Your task to perform on an android device: change notifications settings Image 0: 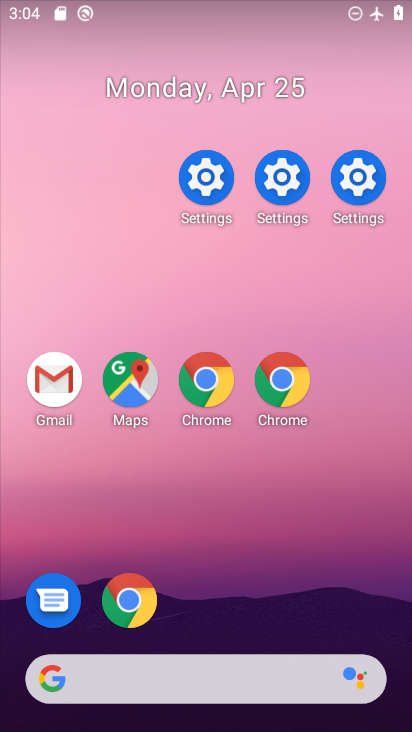
Step 0: drag from (207, 536) to (168, 201)
Your task to perform on an android device: change notifications settings Image 1: 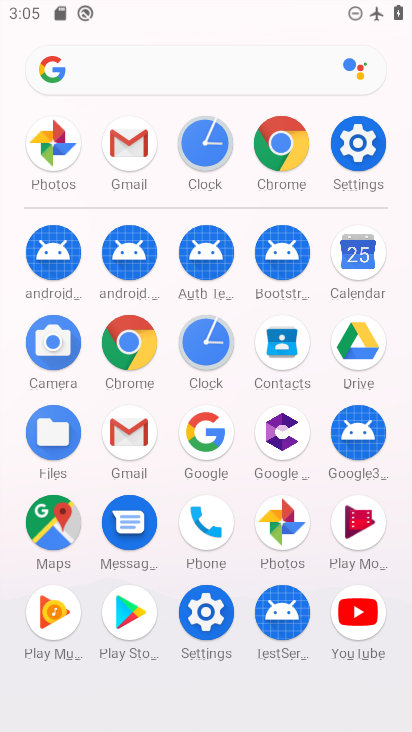
Step 1: drag from (244, 576) to (125, 120)
Your task to perform on an android device: change notifications settings Image 2: 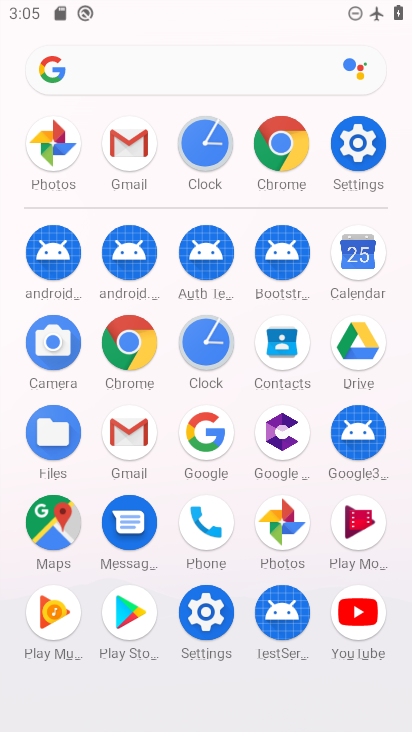
Step 2: click (353, 132)
Your task to perform on an android device: change notifications settings Image 3: 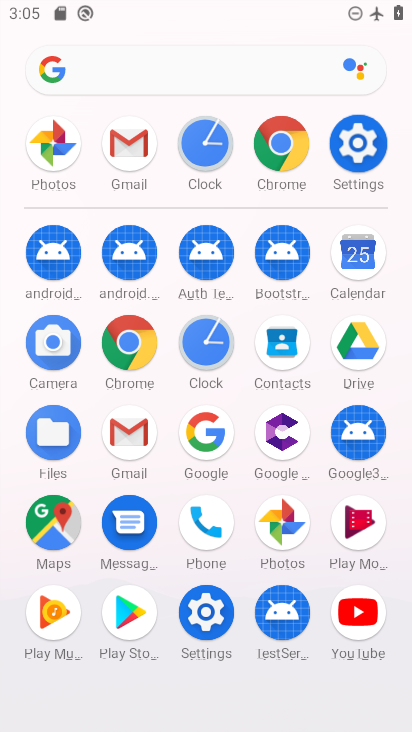
Step 3: click (353, 132)
Your task to perform on an android device: change notifications settings Image 4: 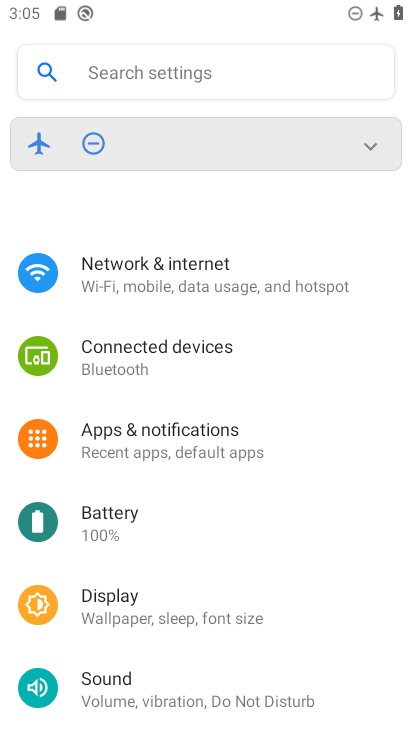
Step 4: click (353, 132)
Your task to perform on an android device: change notifications settings Image 5: 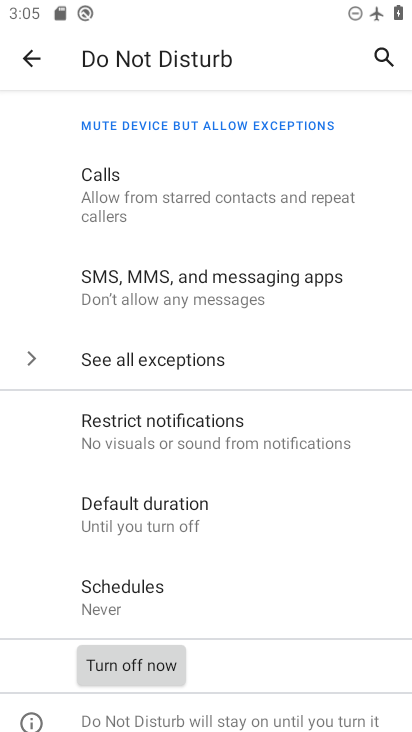
Step 5: click (28, 57)
Your task to perform on an android device: change notifications settings Image 6: 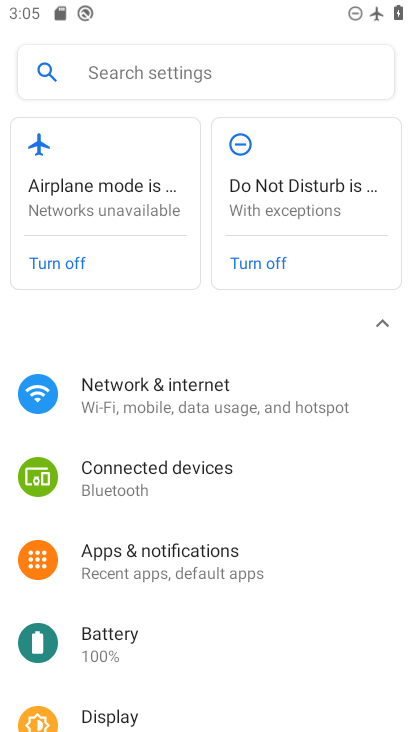
Step 6: click (28, 57)
Your task to perform on an android device: change notifications settings Image 7: 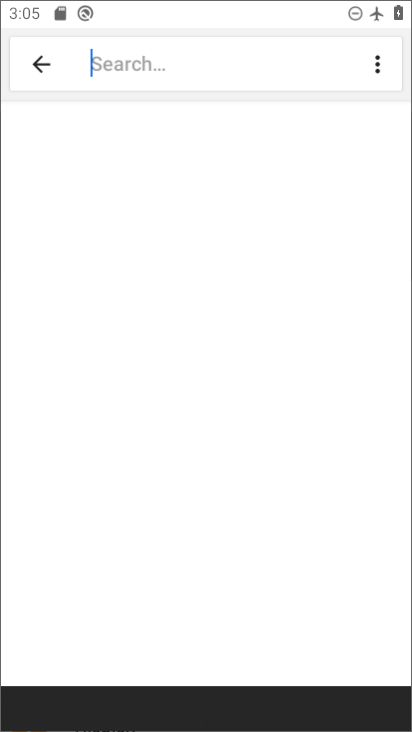
Step 7: click (155, 558)
Your task to perform on an android device: change notifications settings Image 8: 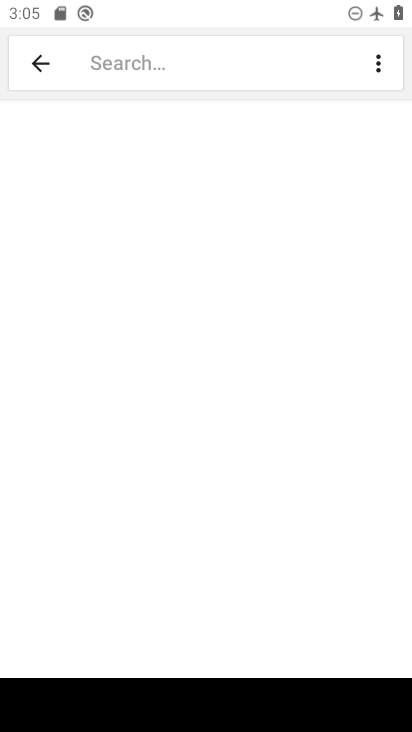
Step 8: click (154, 559)
Your task to perform on an android device: change notifications settings Image 9: 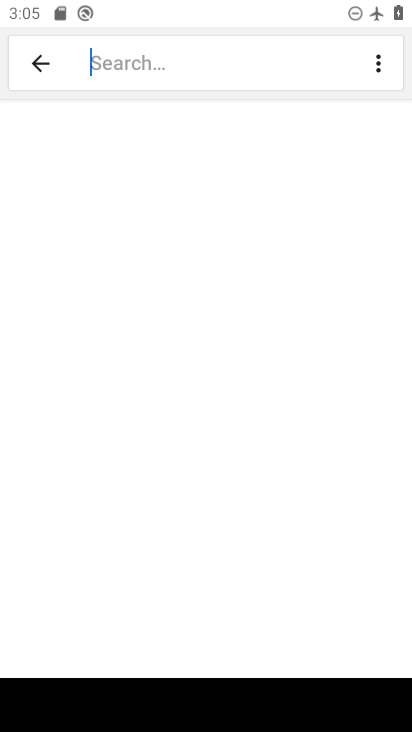
Step 9: click (36, 63)
Your task to perform on an android device: change notifications settings Image 10: 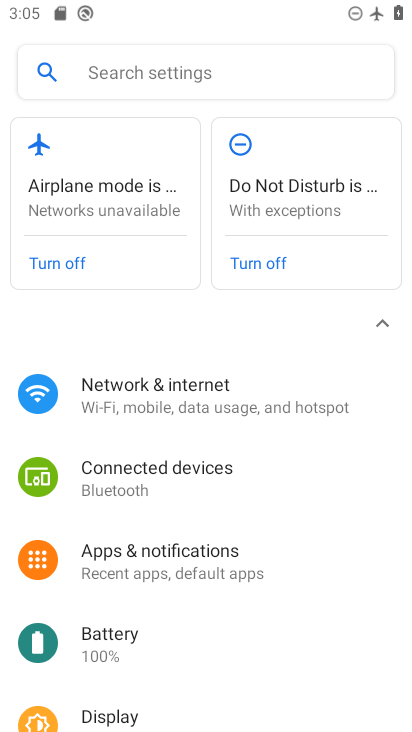
Step 10: click (144, 569)
Your task to perform on an android device: change notifications settings Image 11: 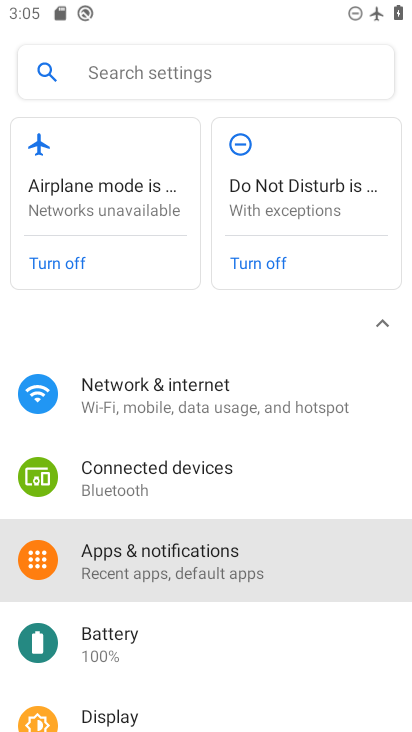
Step 11: click (144, 569)
Your task to perform on an android device: change notifications settings Image 12: 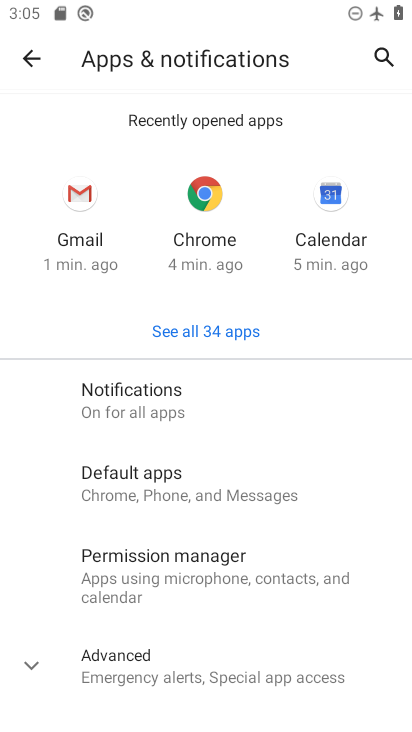
Step 12: click (144, 392)
Your task to perform on an android device: change notifications settings Image 13: 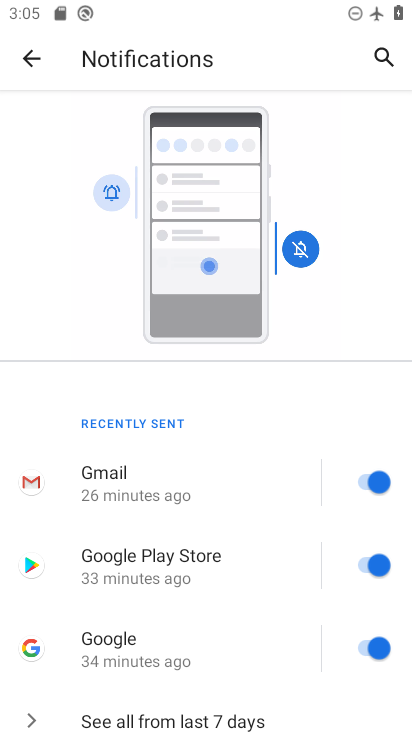
Step 13: drag from (132, 593) to (83, 178)
Your task to perform on an android device: change notifications settings Image 14: 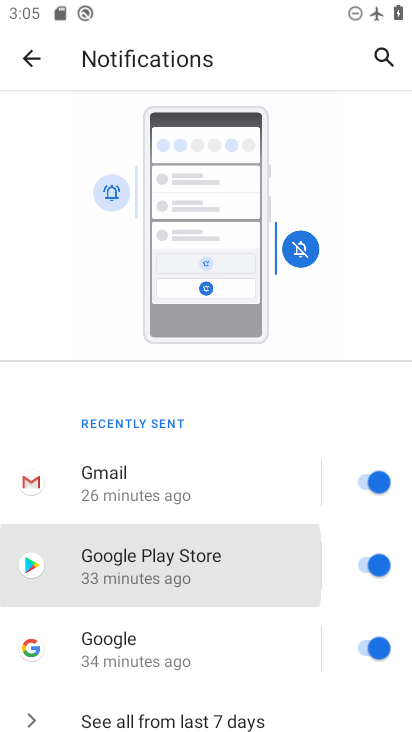
Step 14: drag from (217, 513) to (164, 85)
Your task to perform on an android device: change notifications settings Image 15: 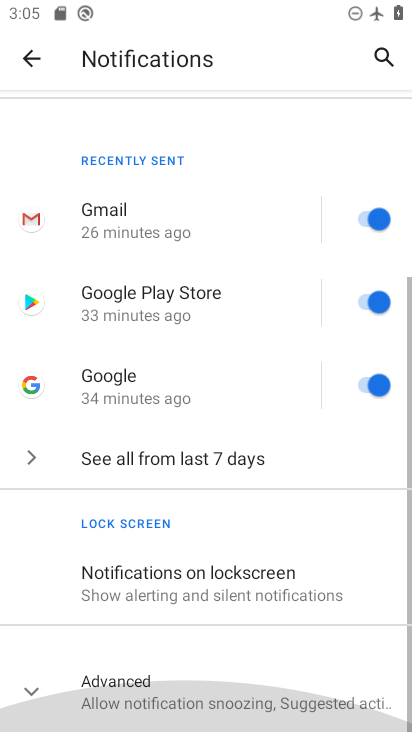
Step 15: drag from (146, 632) to (163, 75)
Your task to perform on an android device: change notifications settings Image 16: 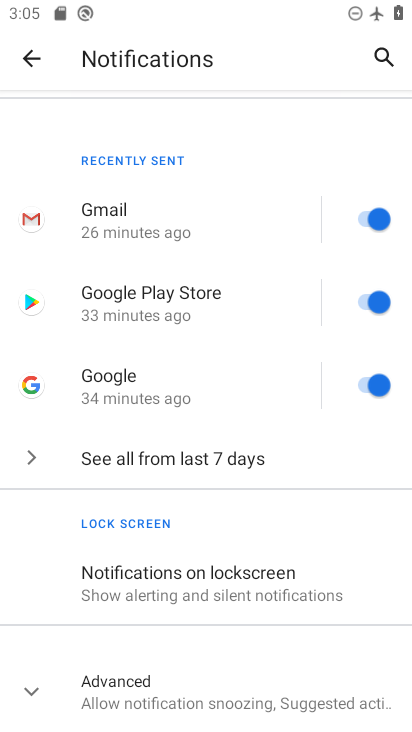
Step 16: click (110, 690)
Your task to perform on an android device: change notifications settings Image 17: 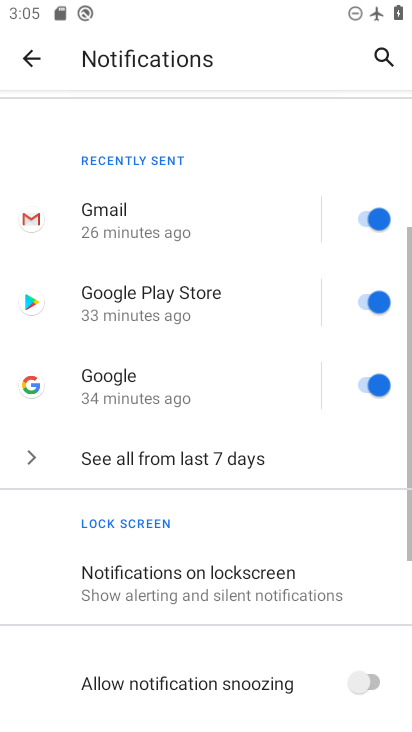
Step 17: drag from (232, 657) to (158, 268)
Your task to perform on an android device: change notifications settings Image 18: 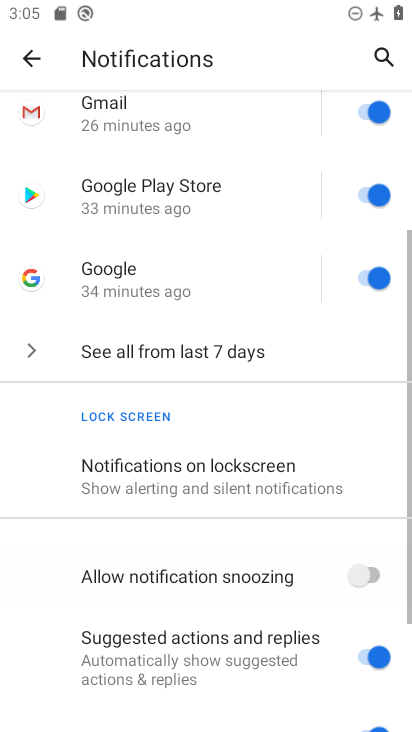
Step 18: drag from (270, 566) to (270, 54)
Your task to perform on an android device: change notifications settings Image 19: 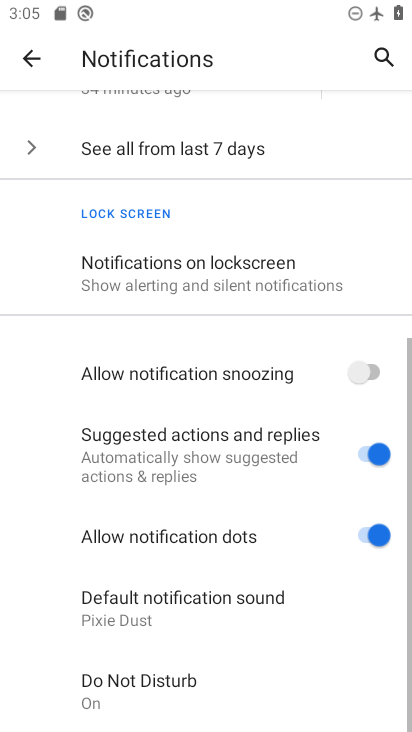
Step 19: drag from (207, 373) to (287, 13)
Your task to perform on an android device: change notifications settings Image 20: 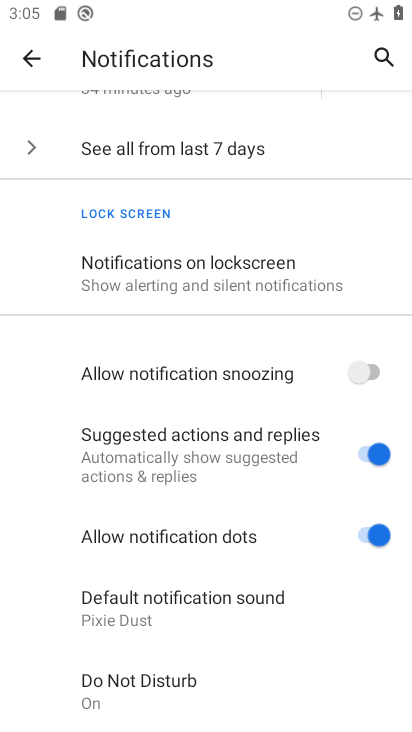
Step 20: click (381, 531)
Your task to perform on an android device: change notifications settings Image 21: 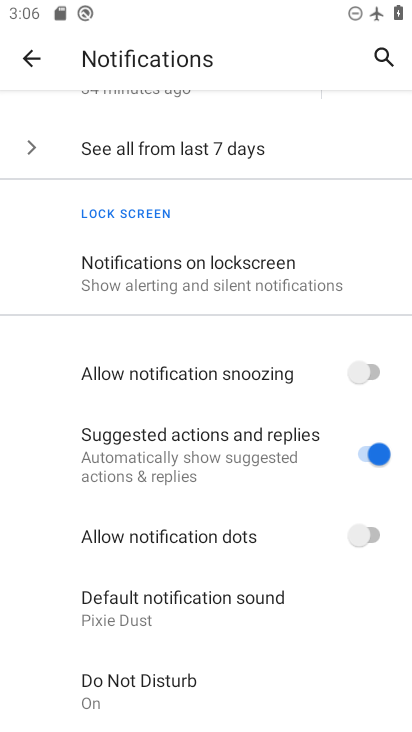
Step 21: click (357, 368)
Your task to perform on an android device: change notifications settings Image 22: 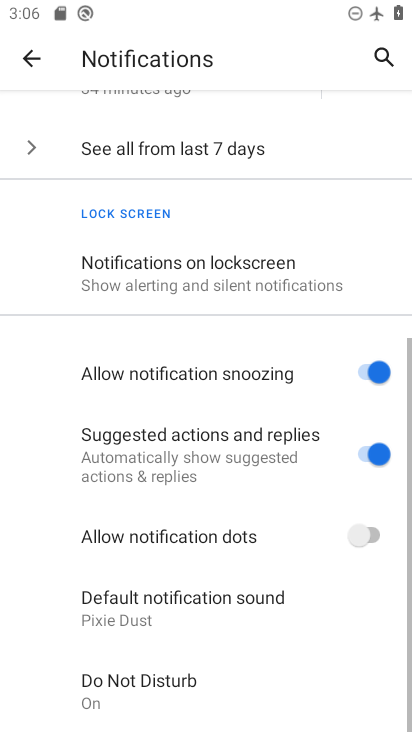
Step 22: click (235, 284)
Your task to perform on an android device: change notifications settings Image 23: 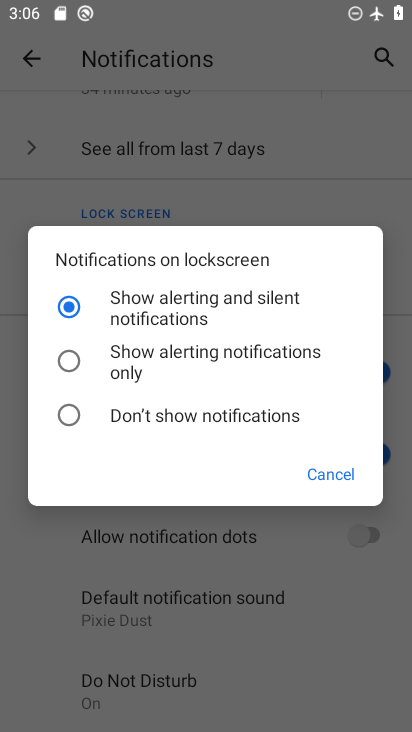
Step 23: click (72, 362)
Your task to perform on an android device: change notifications settings Image 24: 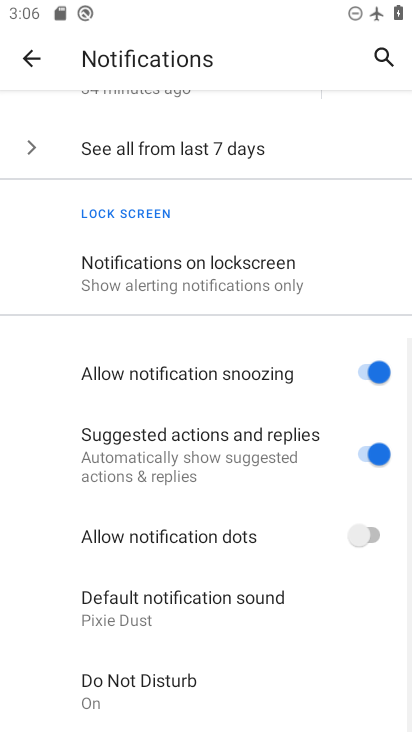
Step 24: task complete